Your task to perform on an android device: empty trash in the gmail app Image 0: 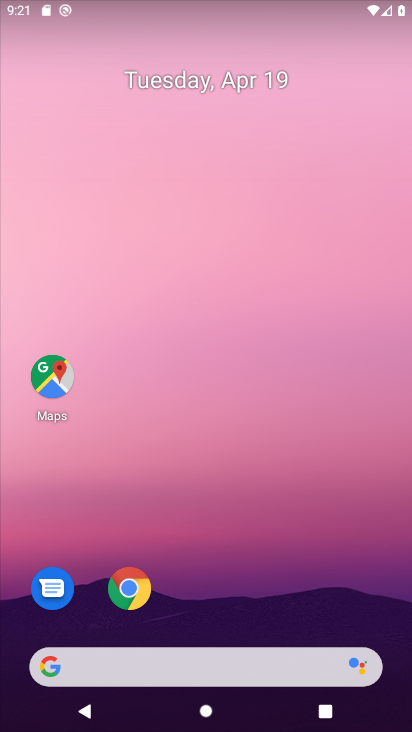
Step 0: drag from (225, 439) to (297, 94)
Your task to perform on an android device: empty trash in the gmail app Image 1: 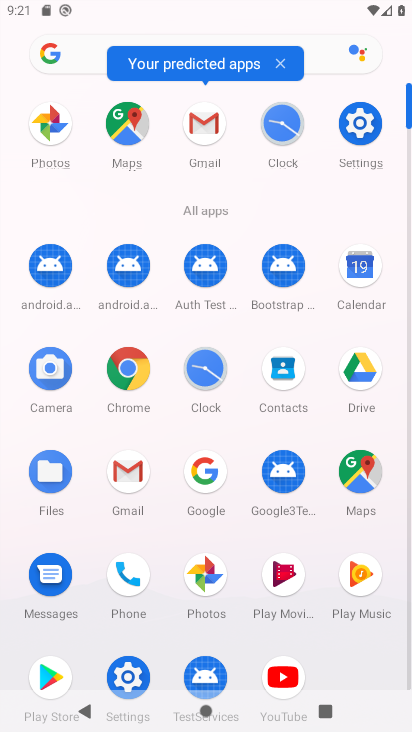
Step 1: click (134, 473)
Your task to perform on an android device: empty trash in the gmail app Image 2: 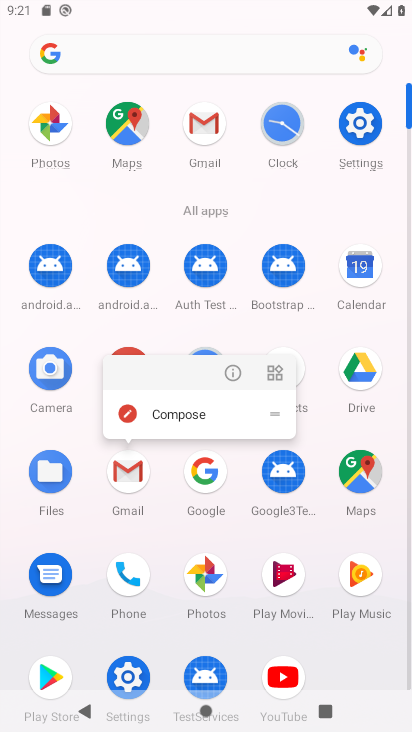
Step 2: click (126, 482)
Your task to perform on an android device: empty trash in the gmail app Image 3: 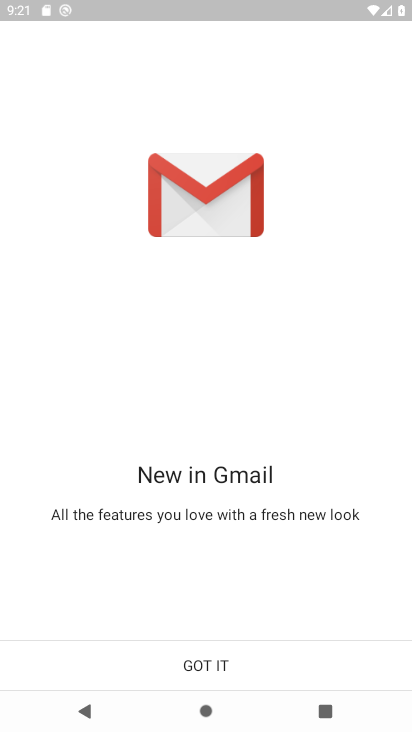
Step 3: click (218, 667)
Your task to perform on an android device: empty trash in the gmail app Image 4: 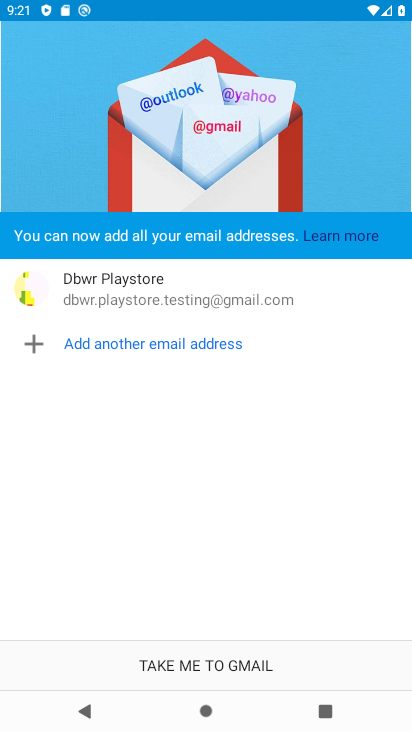
Step 4: click (218, 667)
Your task to perform on an android device: empty trash in the gmail app Image 5: 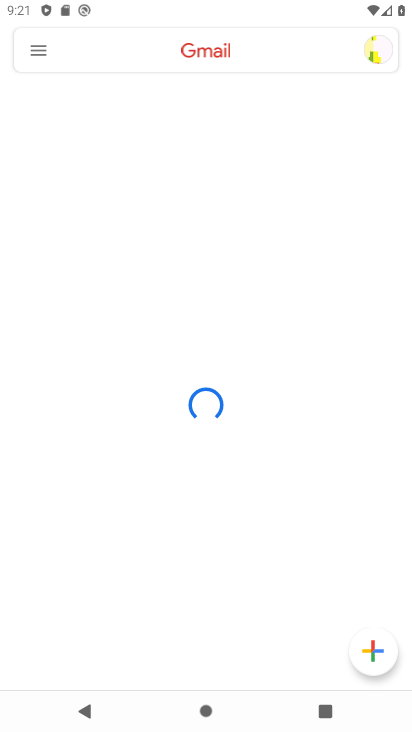
Step 5: click (48, 55)
Your task to perform on an android device: empty trash in the gmail app Image 6: 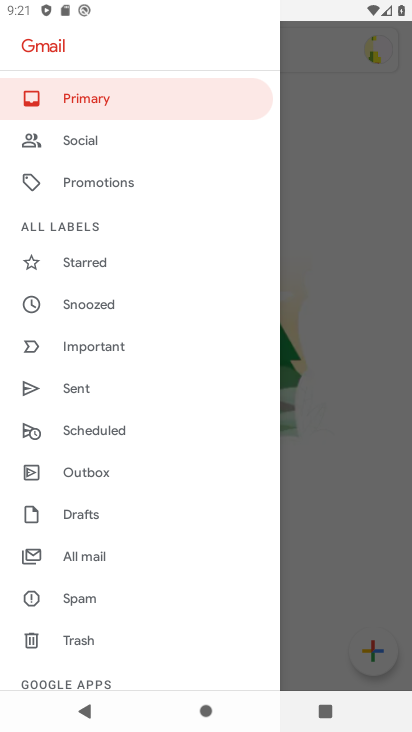
Step 6: click (93, 644)
Your task to perform on an android device: empty trash in the gmail app Image 7: 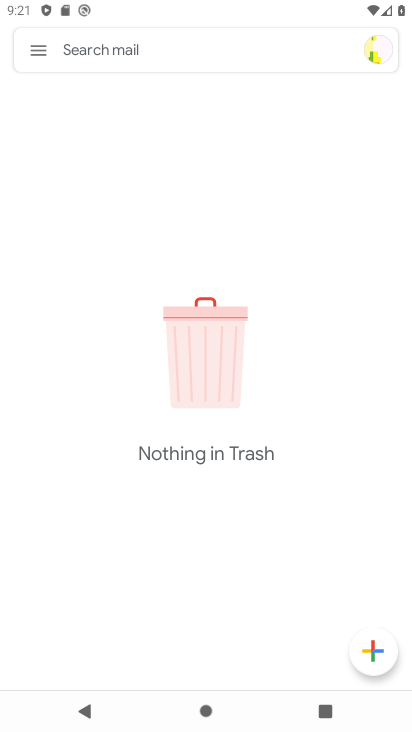
Step 7: task complete